Your task to perform on an android device: Turn on the flashlight Image 0: 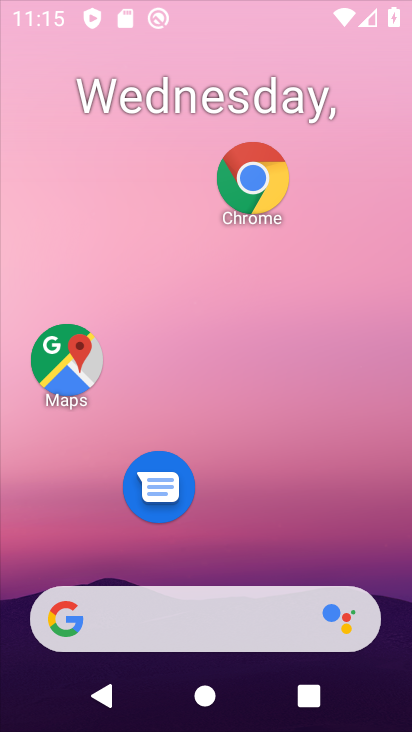
Step 0: click (267, 40)
Your task to perform on an android device: Turn on the flashlight Image 1: 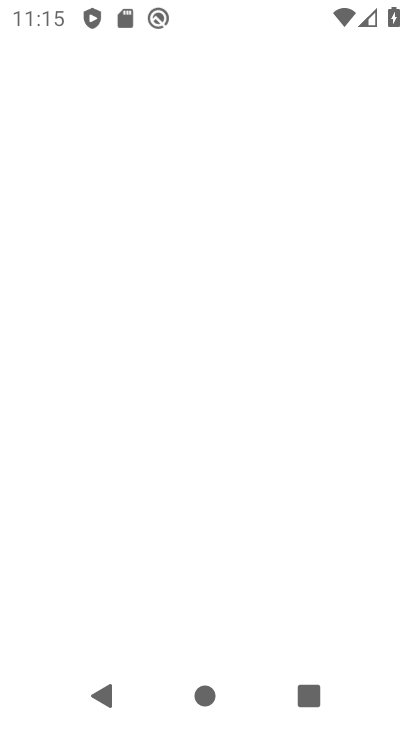
Step 1: press home button
Your task to perform on an android device: Turn on the flashlight Image 2: 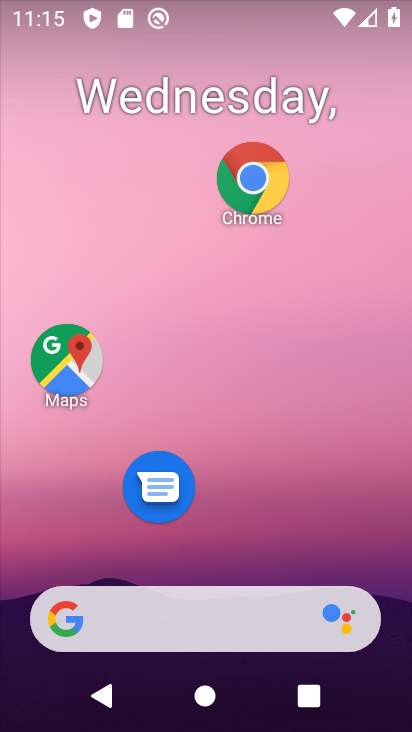
Step 2: drag from (311, 371) to (335, 71)
Your task to perform on an android device: Turn on the flashlight Image 3: 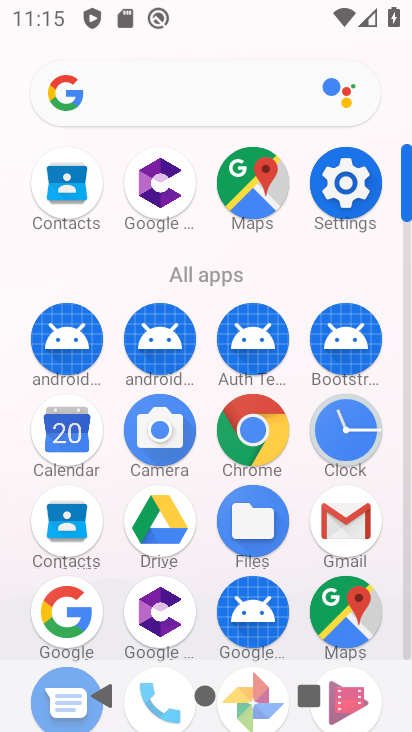
Step 3: click (335, 179)
Your task to perform on an android device: Turn on the flashlight Image 4: 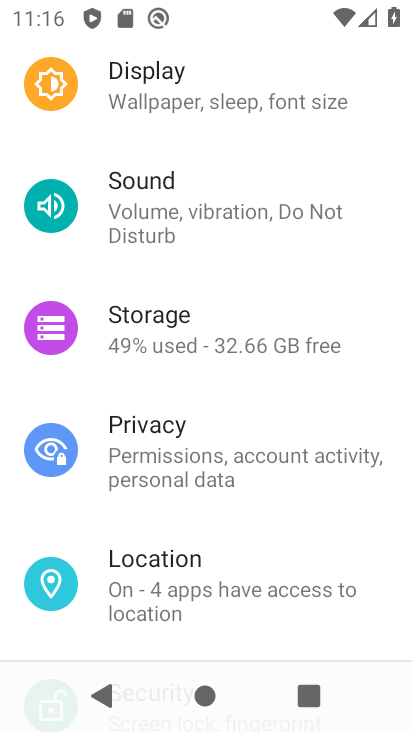
Step 4: drag from (300, 177) to (304, 553)
Your task to perform on an android device: Turn on the flashlight Image 5: 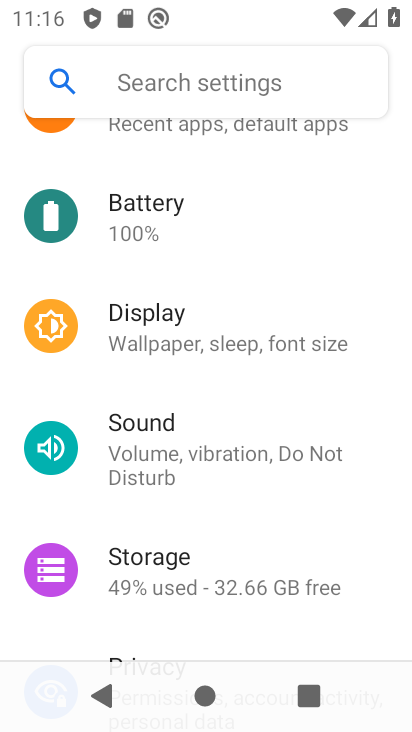
Step 5: drag from (297, 215) to (316, 473)
Your task to perform on an android device: Turn on the flashlight Image 6: 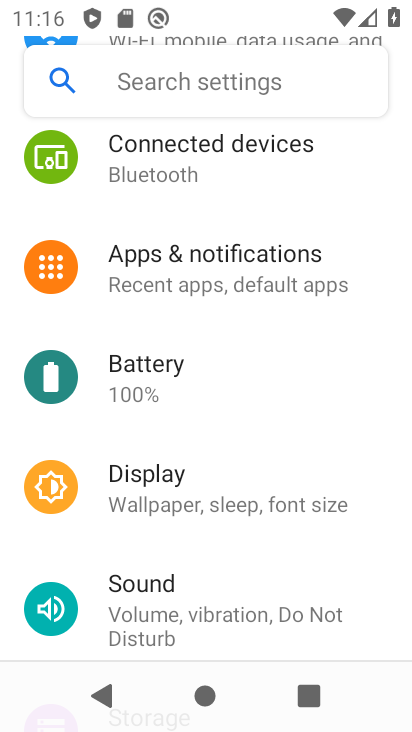
Step 6: click (272, 252)
Your task to perform on an android device: Turn on the flashlight Image 7: 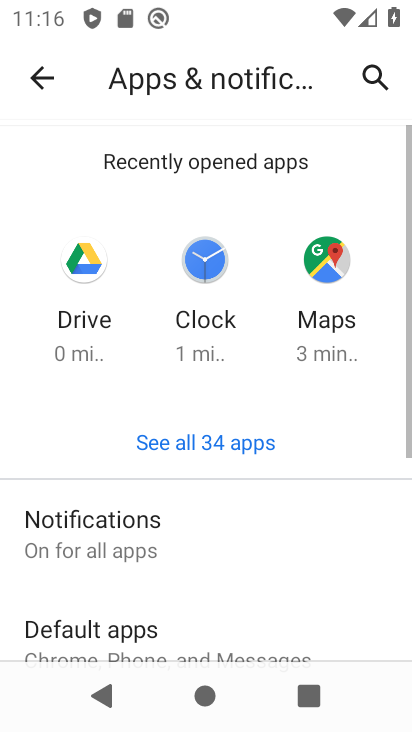
Step 7: drag from (355, 533) to (334, 200)
Your task to perform on an android device: Turn on the flashlight Image 8: 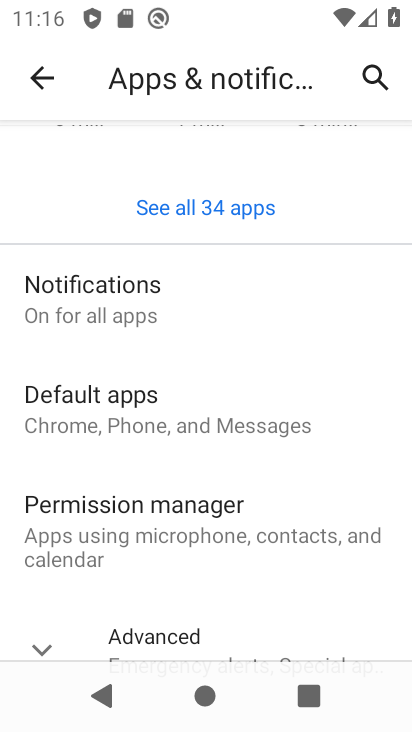
Step 8: click (227, 207)
Your task to perform on an android device: Turn on the flashlight Image 9: 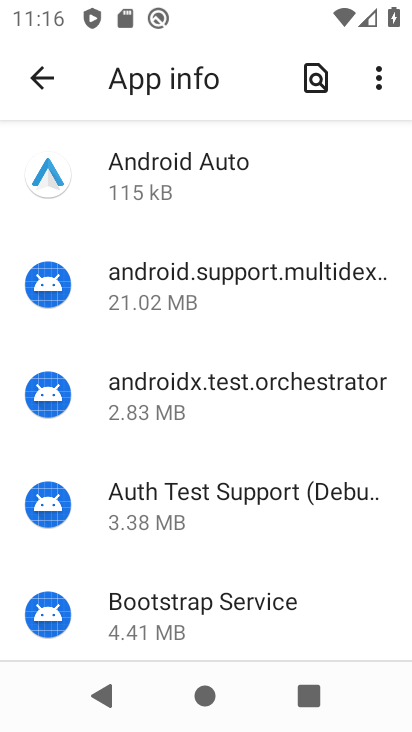
Step 9: task complete